Your task to perform on an android device: How much does a 2 bedroom apartment rent for in Washington DC? Image 0: 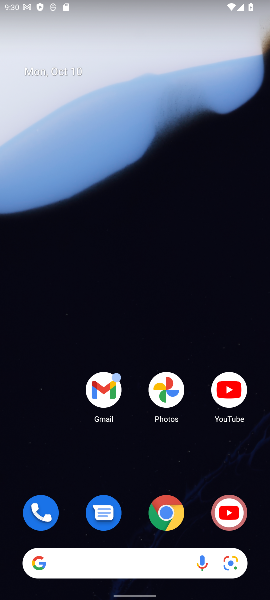
Step 0: click (96, 562)
Your task to perform on an android device: How much does a 2 bedroom apartment rent for in Washington DC? Image 1: 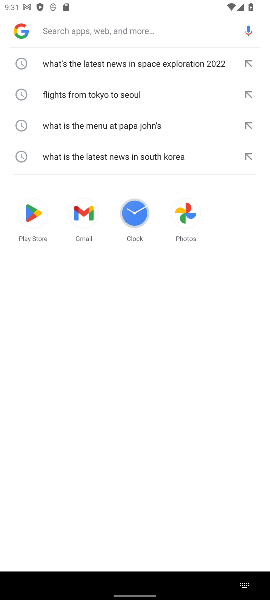
Step 1: type "How much does a 2 bedroom apartment rent for in Washington DC?"
Your task to perform on an android device: How much does a 2 bedroom apartment rent for in Washington DC? Image 2: 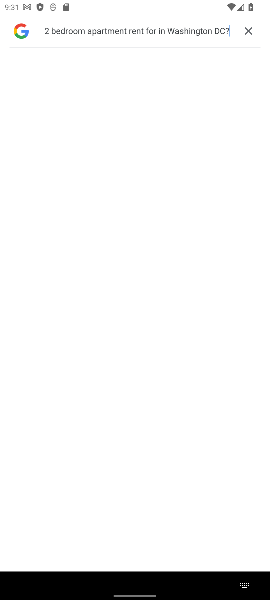
Step 2: press back button
Your task to perform on an android device: How much does a 2 bedroom apartment rent for in Washington DC? Image 3: 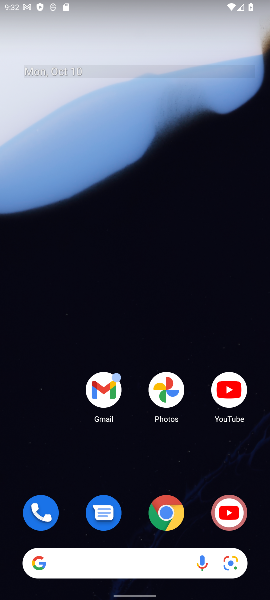
Step 3: drag from (112, 435) to (50, 21)
Your task to perform on an android device: How much does a 2 bedroom apartment rent for in Washington DC? Image 4: 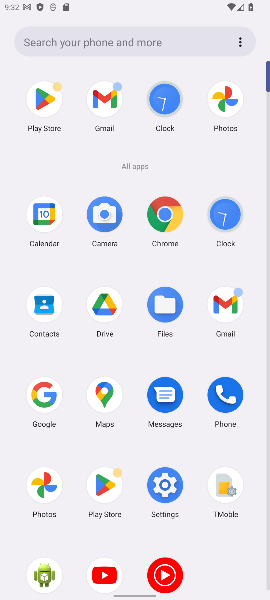
Step 4: click (50, 393)
Your task to perform on an android device: How much does a 2 bedroom apartment rent for in Washington DC? Image 5: 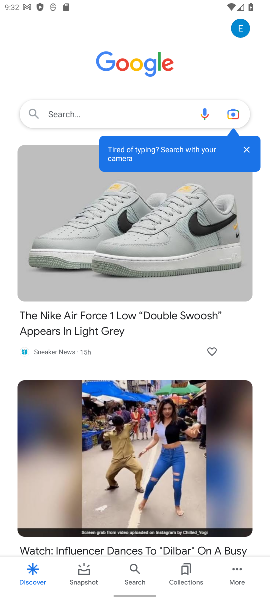
Step 5: click (87, 115)
Your task to perform on an android device: How much does a 2 bedroom apartment rent for in Washington DC? Image 6: 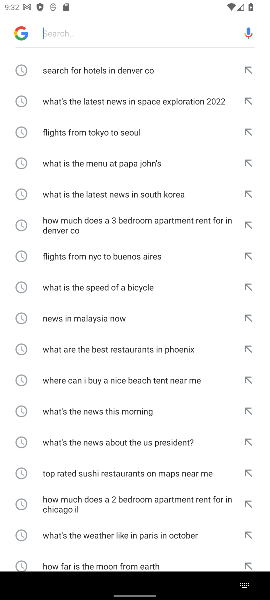
Step 6: type "How much does a 2 bedroom apartment rent for in Washington DC?"
Your task to perform on an android device: How much does a 2 bedroom apartment rent for in Washington DC? Image 7: 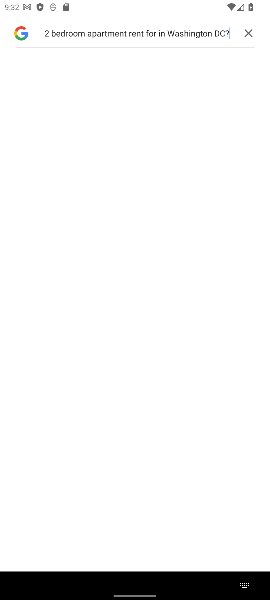
Step 7: task complete